Your task to perform on an android device: set an alarm Image 0: 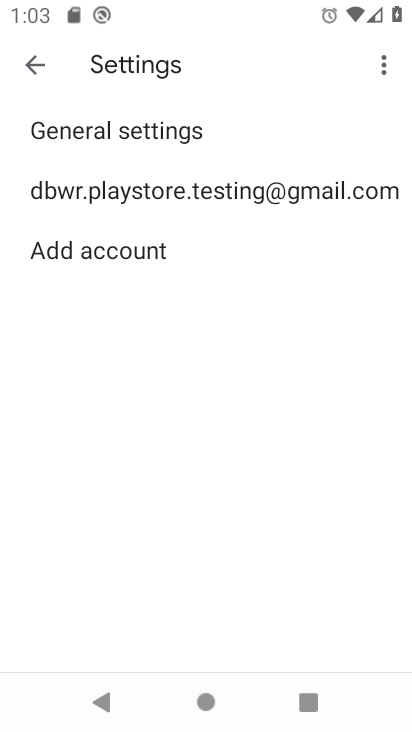
Step 0: press home button
Your task to perform on an android device: set an alarm Image 1: 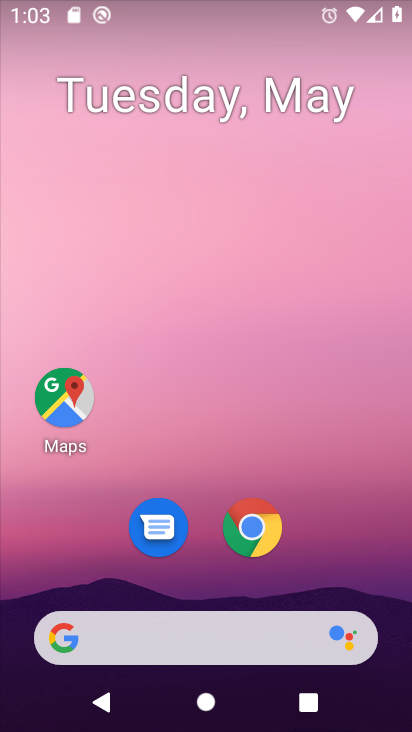
Step 1: drag from (258, 689) to (296, 7)
Your task to perform on an android device: set an alarm Image 2: 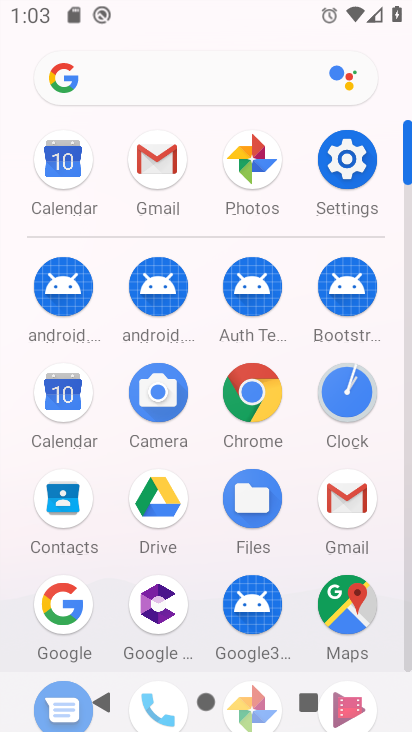
Step 2: click (365, 386)
Your task to perform on an android device: set an alarm Image 3: 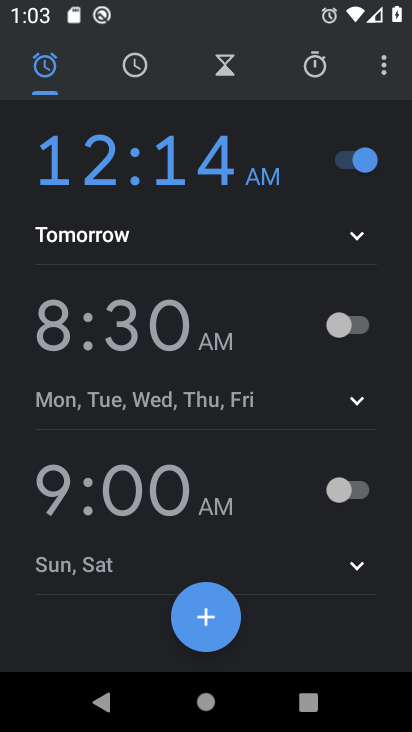
Step 3: click (201, 612)
Your task to perform on an android device: set an alarm Image 4: 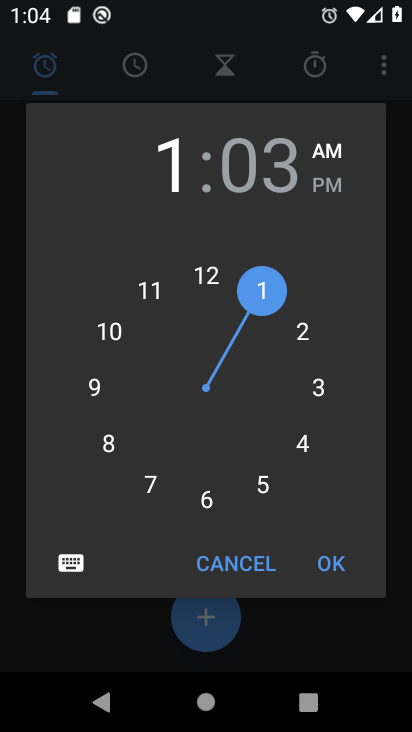
Step 4: click (320, 563)
Your task to perform on an android device: set an alarm Image 5: 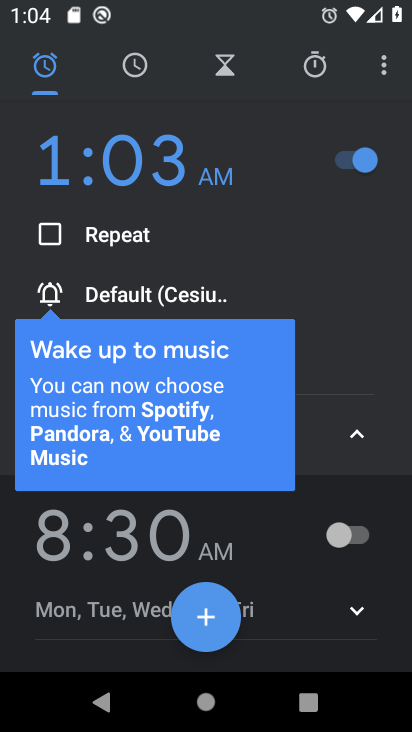
Step 5: click (218, 609)
Your task to perform on an android device: set an alarm Image 6: 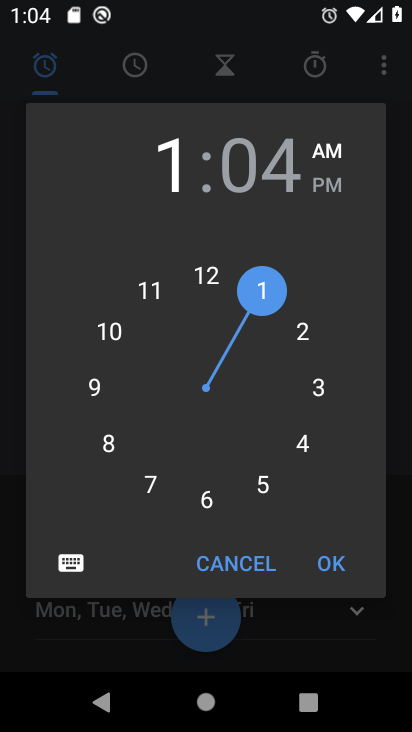
Step 6: click (333, 558)
Your task to perform on an android device: set an alarm Image 7: 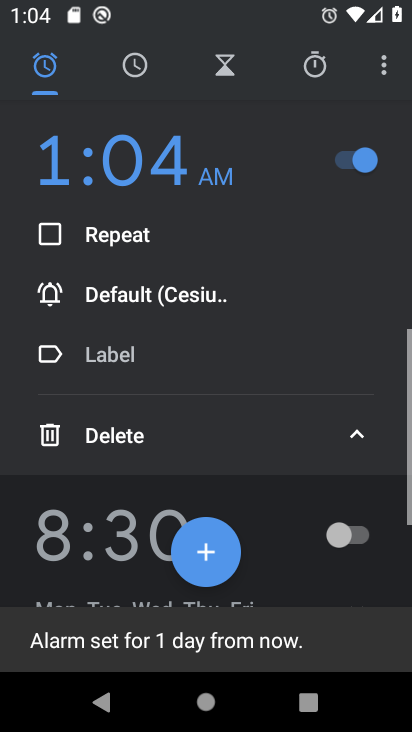
Step 7: task complete